Your task to perform on an android device: Open eBay Image 0: 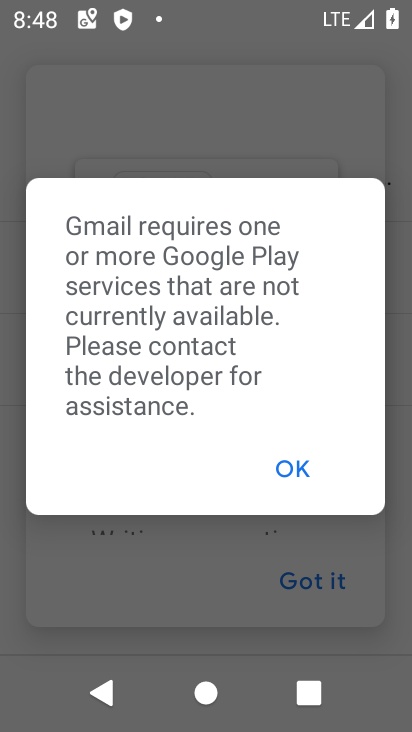
Step 0: press home button
Your task to perform on an android device: Open eBay Image 1: 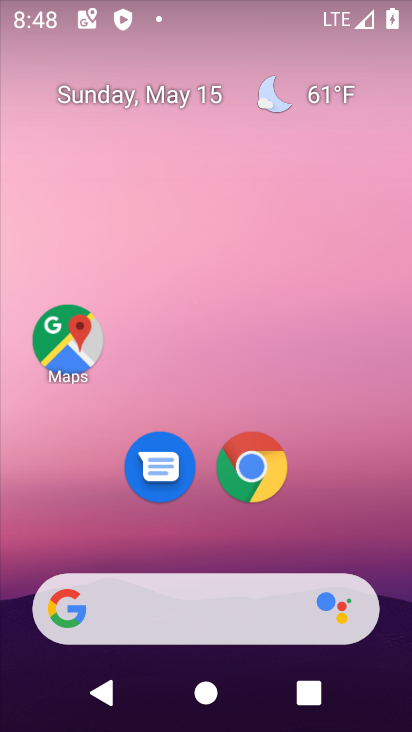
Step 1: click (168, 618)
Your task to perform on an android device: Open eBay Image 2: 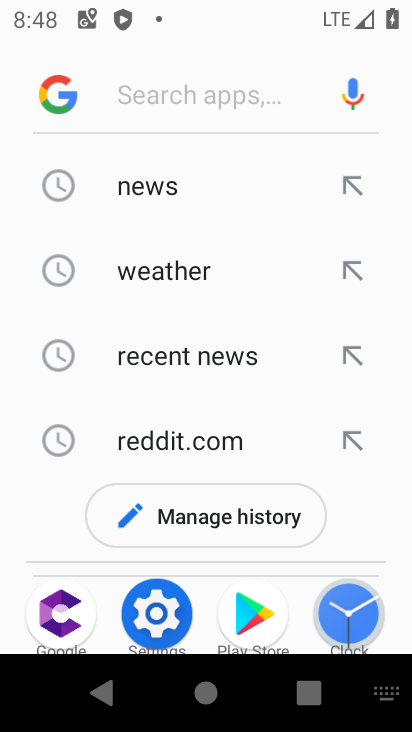
Step 2: type "ebay"
Your task to perform on an android device: Open eBay Image 3: 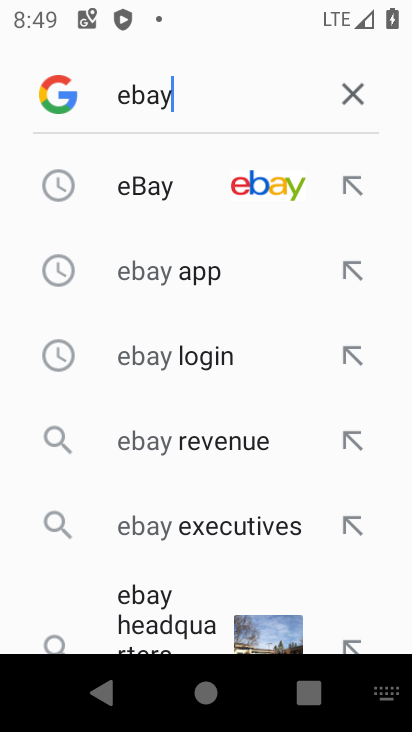
Step 3: click (263, 189)
Your task to perform on an android device: Open eBay Image 4: 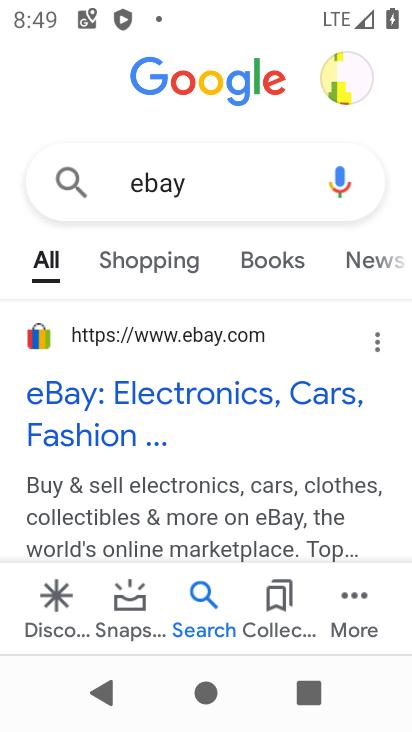
Step 4: click (241, 398)
Your task to perform on an android device: Open eBay Image 5: 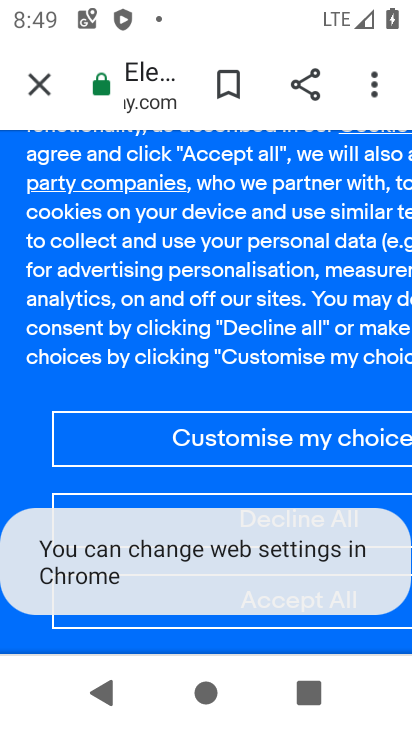
Step 5: task complete